Your task to perform on an android device: Go to Android settings Image 0: 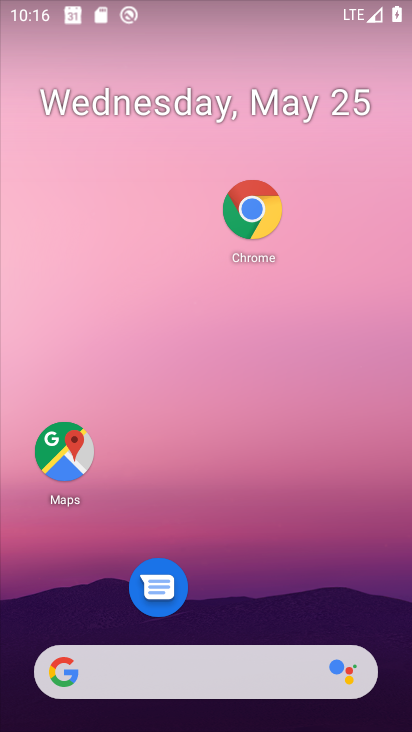
Step 0: drag from (258, 616) to (271, 196)
Your task to perform on an android device: Go to Android settings Image 1: 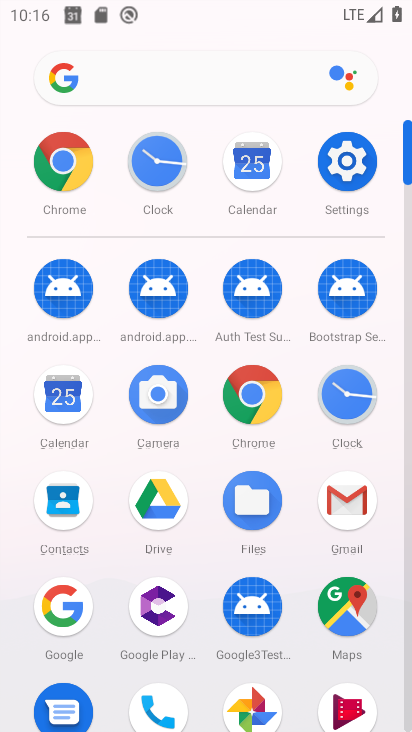
Step 1: click (367, 162)
Your task to perform on an android device: Go to Android settings Image 2: 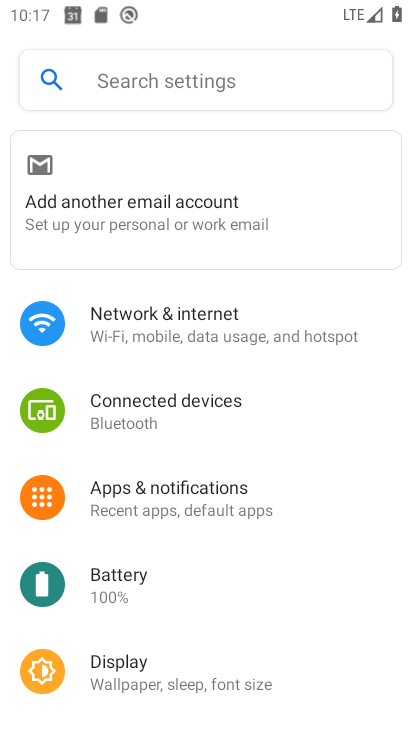
Step 2: drag from (174, 589) to (222, 210)
Your task to perform on an android device: Go to Android settings Image 3: 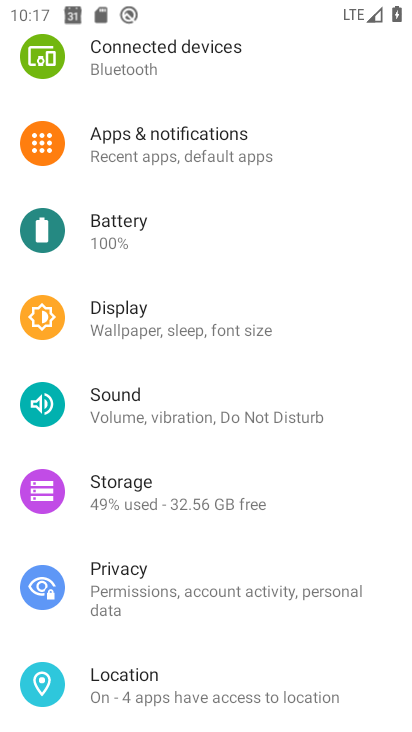
Step 3: drag from (222, 508) to (259, 153)
Your task to perform on an android device: Go to Android settings Image 4: 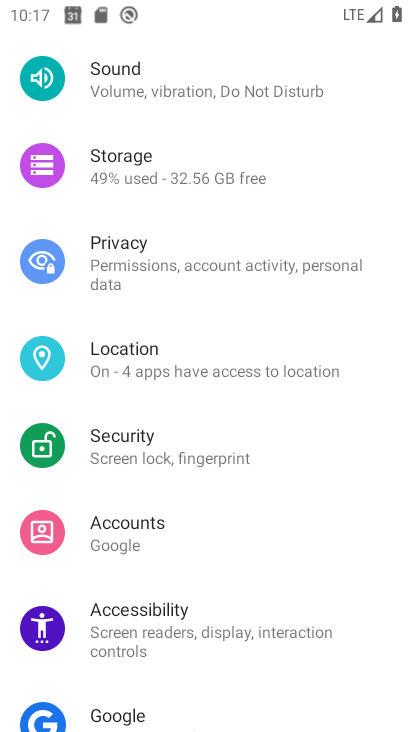
Step 4: drag from (198, 539) to (229, 167)
Your task to perform on an android device: Go to Android settings Image 5: 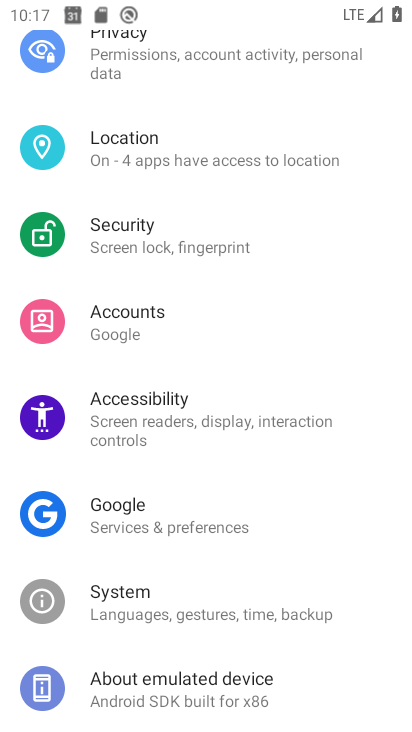
Step 5: drag from (209, 572) to (237, 288)
Your task to perform on an android device: Go to Android settings Image 6: 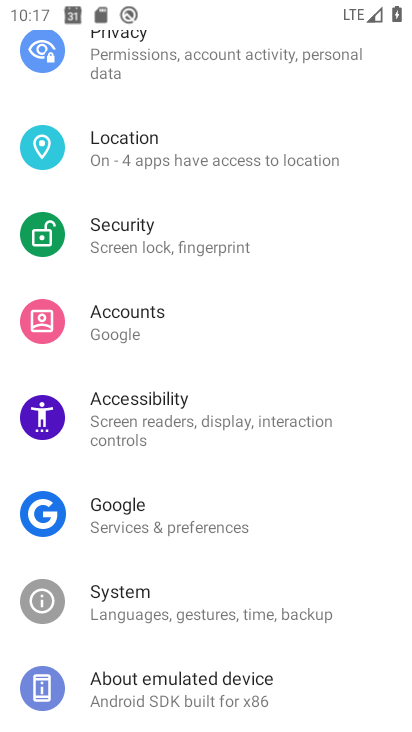
Step 6: drag from (232, 610) to (284, 340)
Your task to perform on an android device: Go to Android settings Image 7: 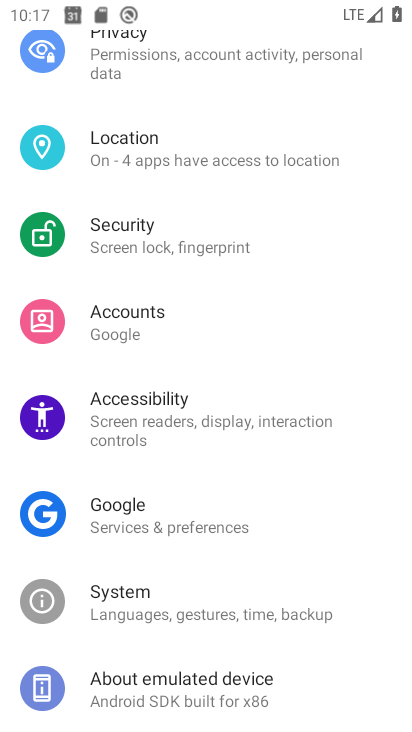
Step 7: click (194, 680)
Your task to perform on an android device: Go to Android settings Image 8: 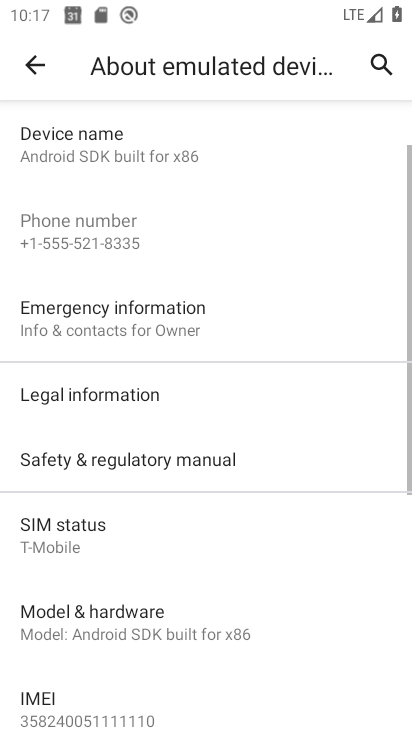
Step 8: drag from (131, 575) to (205, 320)
Your task to perform on an android device: Go to Android settings Image 9: 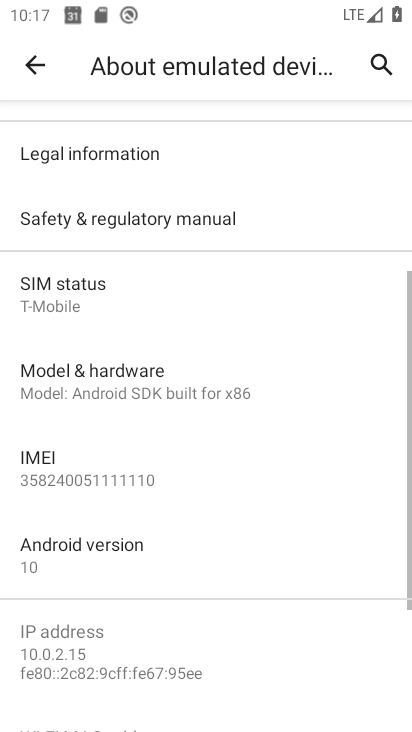
Step 9: click (109, 550)
Your task to perform on an android device: Go to Android settings Image 10: 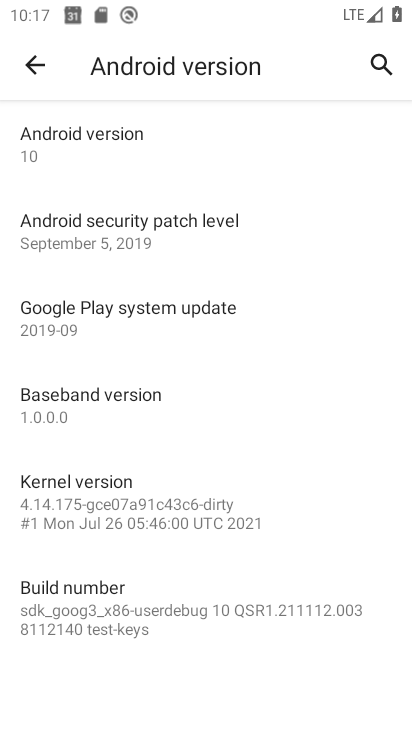
Step 10: task complete